Your task to perform on an android device: find snoozed emails in the gmail app Image 0: 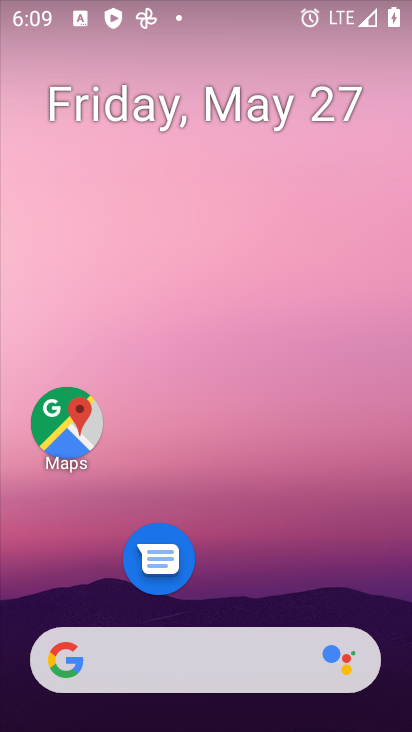
Step 0: drag from (212, 692) to (362, 13)
Your task to perform on an android device: find snoozed emails in the gmail app Image 1: 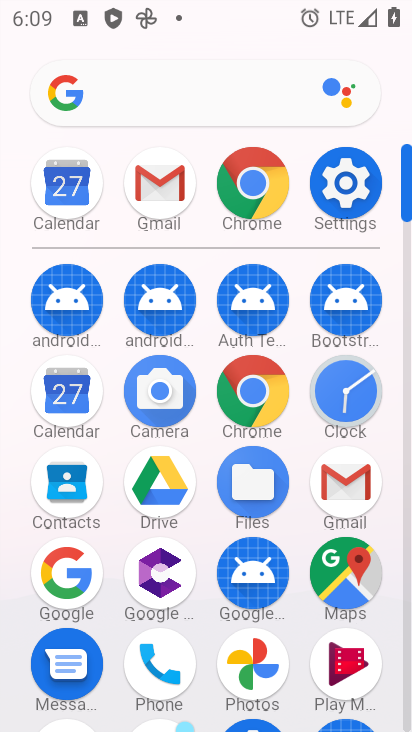
Step 1: click (336, 505)
Your task to perform on an android device: find snoozed emails in the gmail app Image 2: 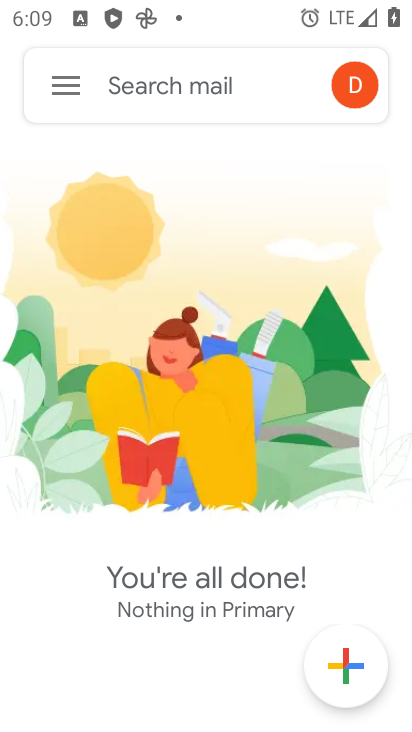
Step 2: click (74, 82)
Your task to perform on an android device: find snoozed emails in the gmail app Image 3: 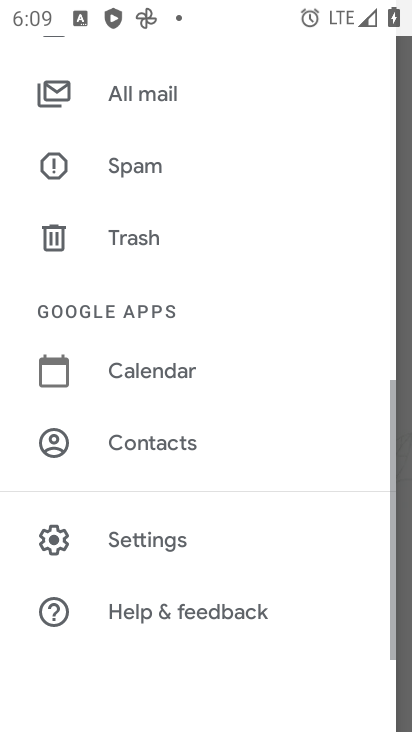
Step 3: drag from (220, 205) to (290, 705)
Your task to perform on an android device: find snoozed emails in the gmail app Image 4: 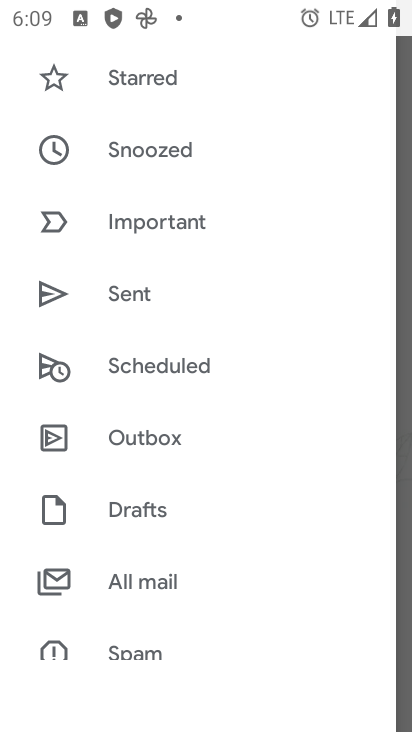
Step 4: drag from (212, 241) to (280, 731)
Your task to perform on an android device: find snoozed emails in the gmail app Image 5: 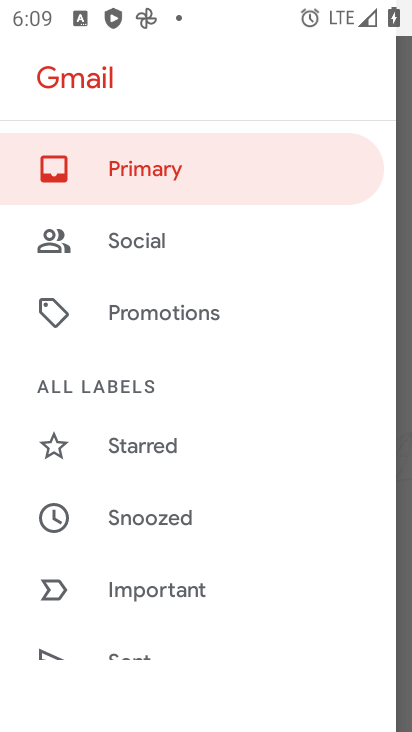
Step 5: click (163, 522)
Your task to perform on an android device: find snoozed emails in the gmail app Image 6: 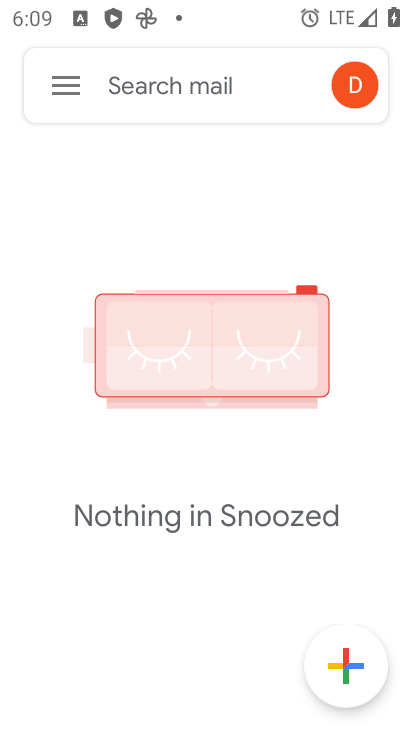
Step 6: task complete